Your task to perform on an android device: toggle airplane mode Image 0: 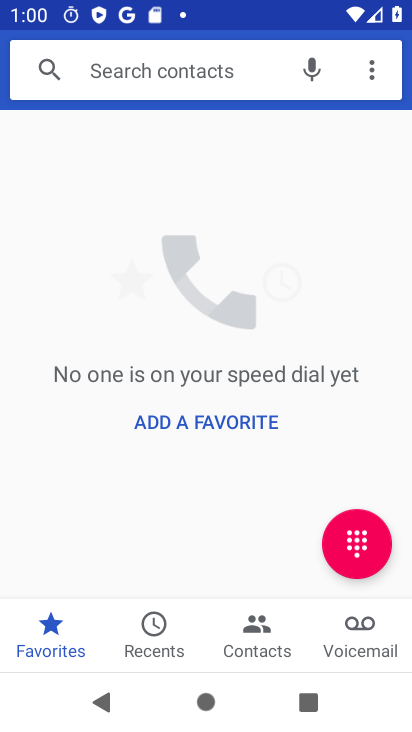
Step 0: press home button
Your task to perform on an android device: toggle airplane mode Image 1: 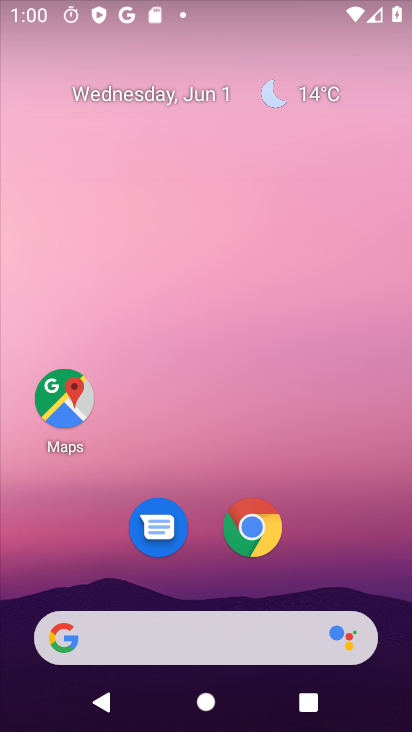
Step 1: drag from (169, 622) to (267, 232)
Your task to perform on an android device: toggle airplane mode Image 2: 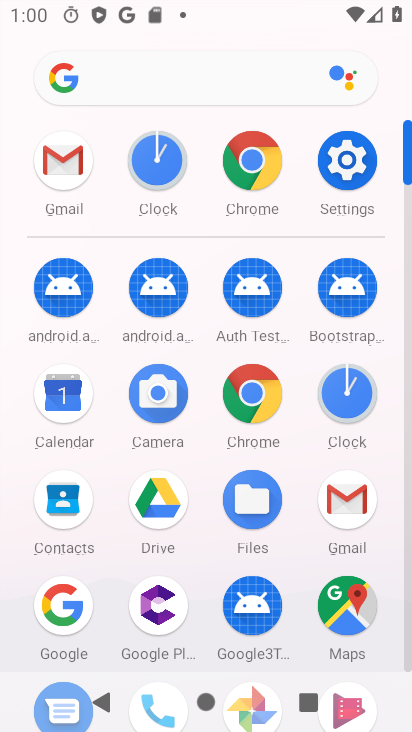
Step 2: click (357, 170)
Your task to perform on an android device: toggle airplane mode Image 3: 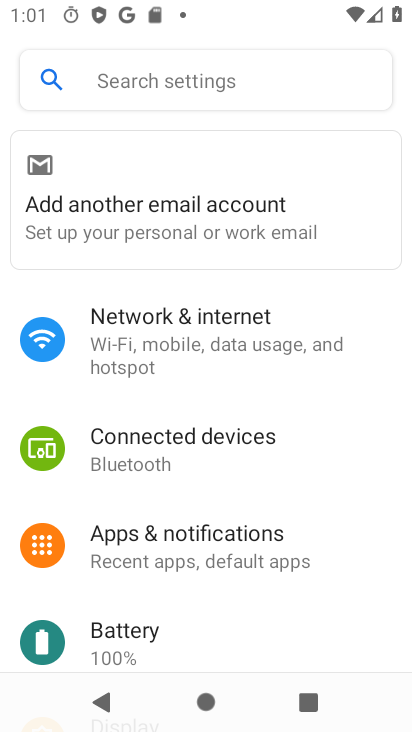
Step 3: click (216, 361)
Your task to perform on an android device: toggle airplane mode Image 4: 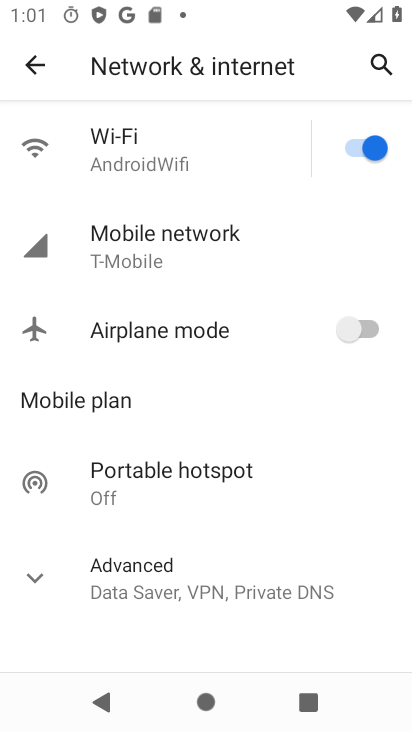
Step 4: click (226, 336)
Your task to perform on an android device: toggle airplane mode Image 5: 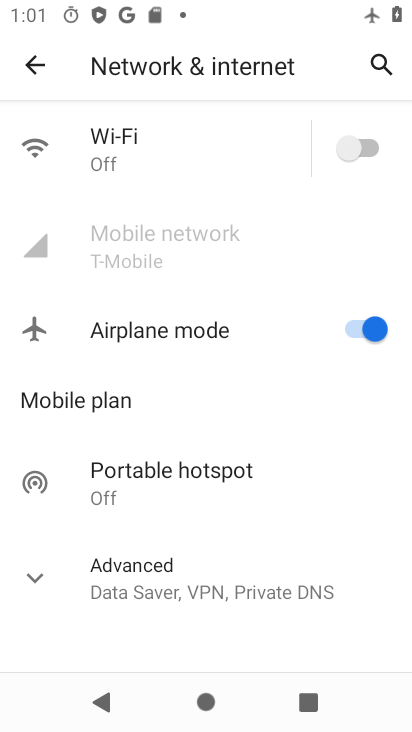
Step 5: task complete